Your task to perform on an android device: Open wifi settings Image 0: 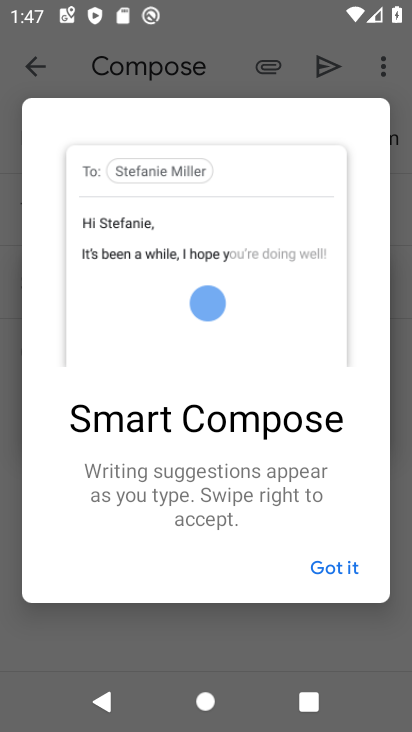
Step 0: press home button
Your task to perform on an android device: Open wifi settings Image 1: 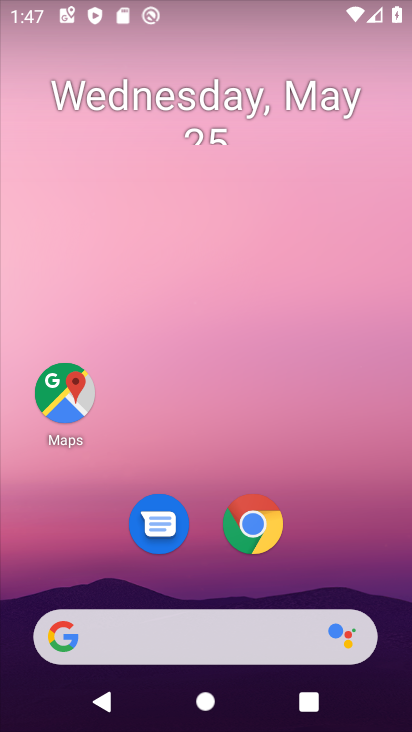
Step 1: drag from (200, 456) to (305, 30)
Your task to perform on an android device: Open wifi settings Image 2: 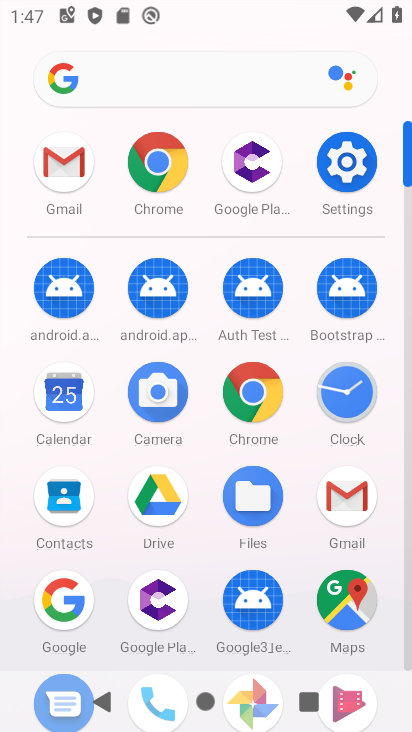
Step 2: click (342, 168)
Your task to perform on an android device: Open wifi settings Image 3: 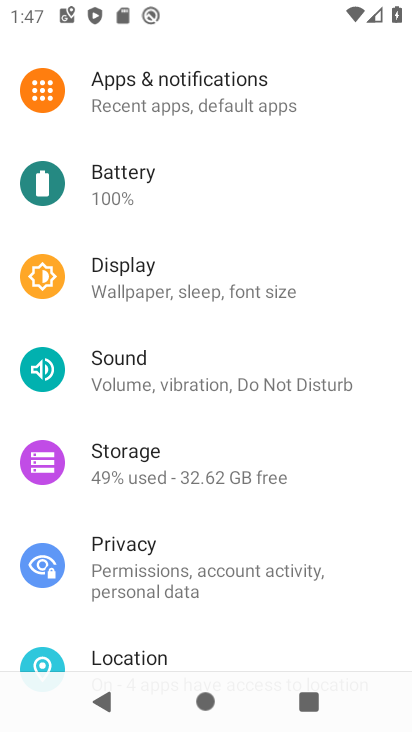
Step 3: drag from (246, 238) to (238, 635)
Your task to perform on an android device: Open wifi settings Image 4: 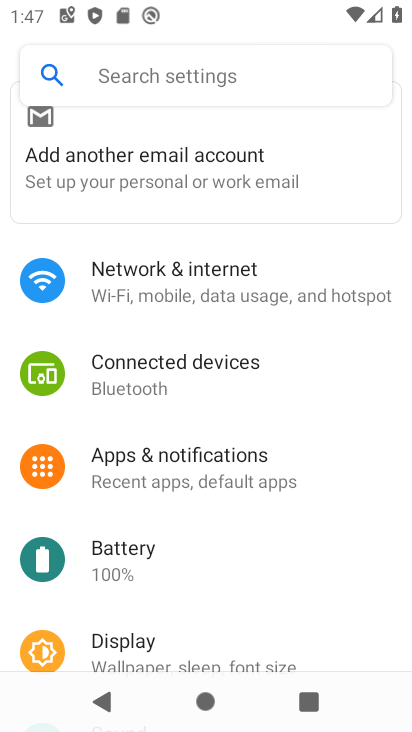
Step 4: click (245, 288)
Your task to perform on an android device: Open wifi settings Image 5: 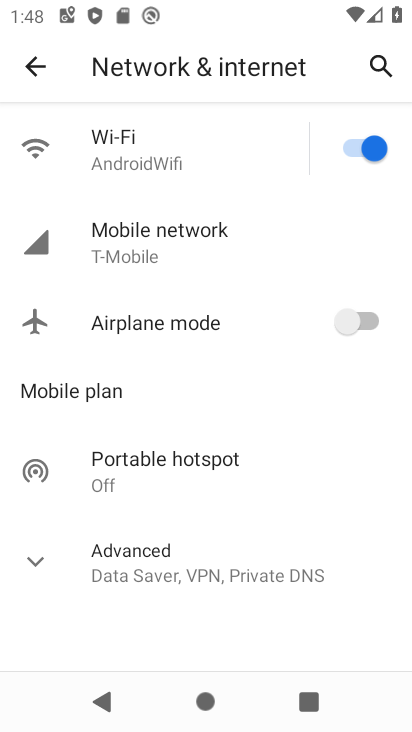
Step 5: click (182, 149)
Your task to perform on an android device: Open wifi settings Image 6: 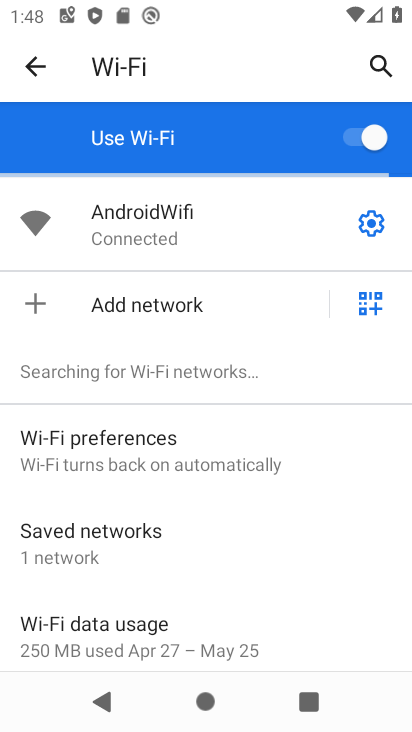
Step 6: task complete